Your task to perform on an android device: Toggle the flashlight Image 0: 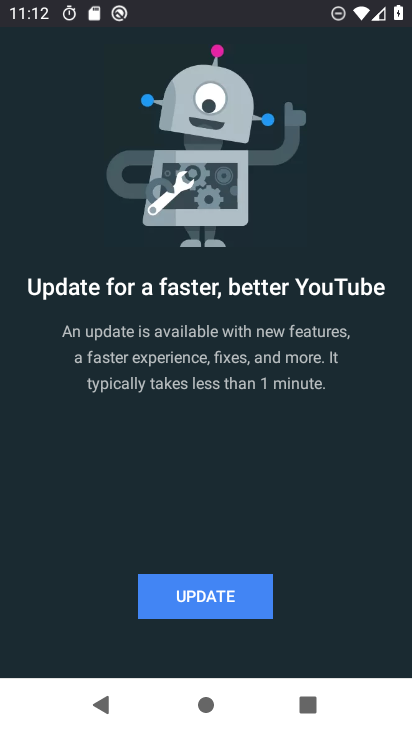
Step 0: press home button
Your task to perform on an android device: Toggle the flashlight Image 1: 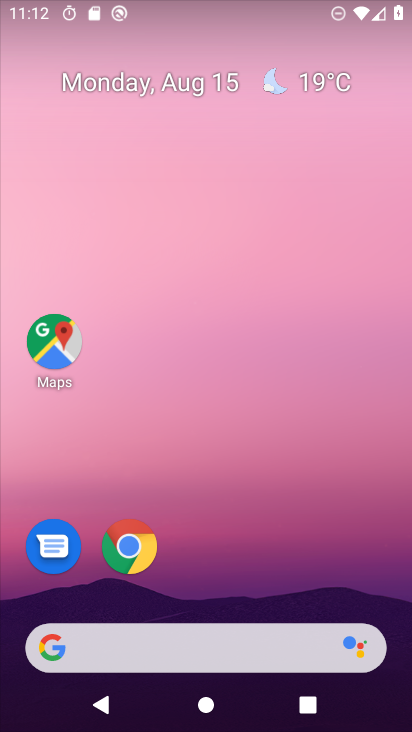
Step 1: drag from (236, 597) to (219, 97)
Your task to perform on an android device: Toggle the flashlight Image 2: 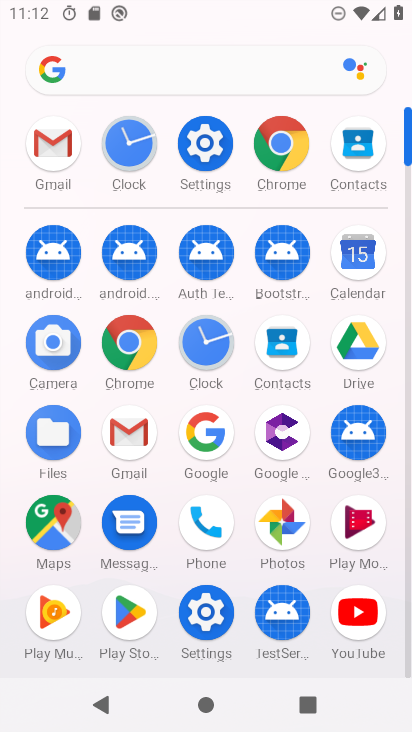
Step 2: click (200, 153)
Your task to perform on an android device: Toggle the flashlight Image 3: 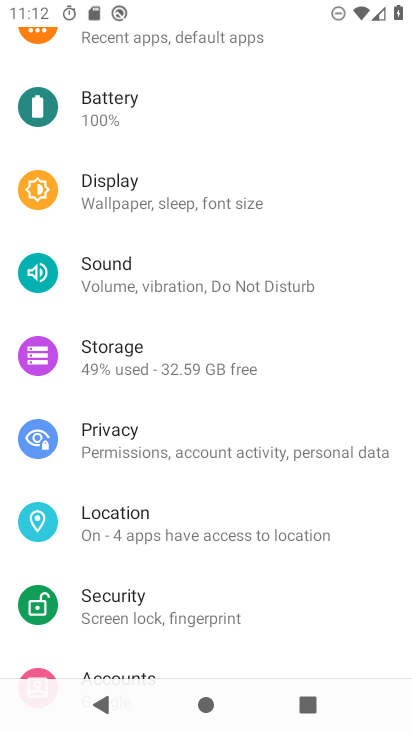
Step 3: task complete